Your task to perform on an android device: Open Yahoo.com Image 0: 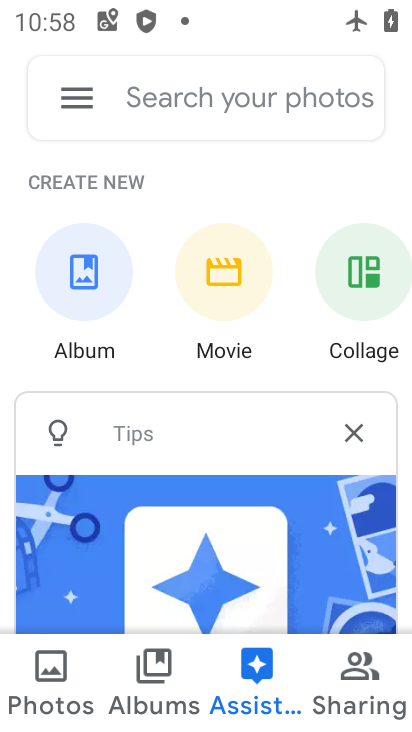
Step 0: press home button
Your task to perform on an android device: Open Yahoo.com Image 1: 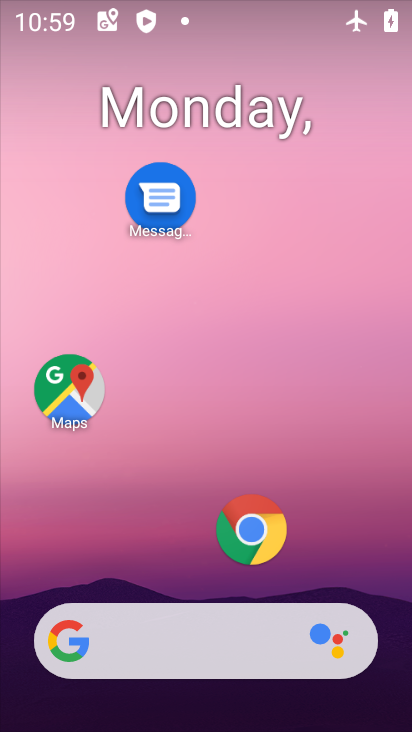
Step 1: drag from (252, 456) to (279, 26)
Your task to perform on an android device: Open Yahoo.com Image 2: 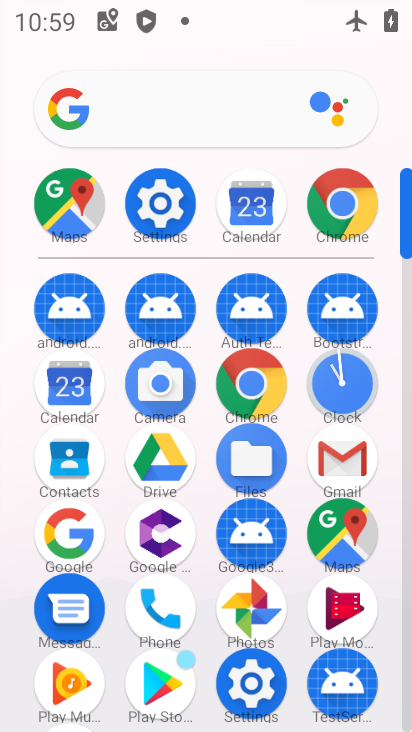
Step 2: click (259, 392)
Your task to perform on an android device: Open Yahoo.com Image 3: 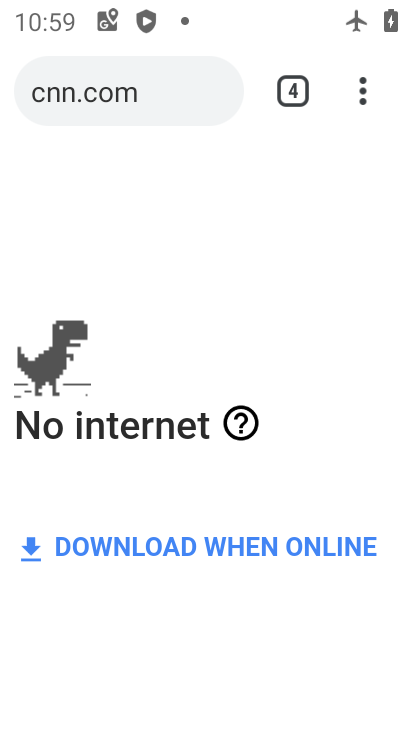
Step 3: click (292, 95)
Your task to perform on an android device: Open Yahoo.com Image 4: 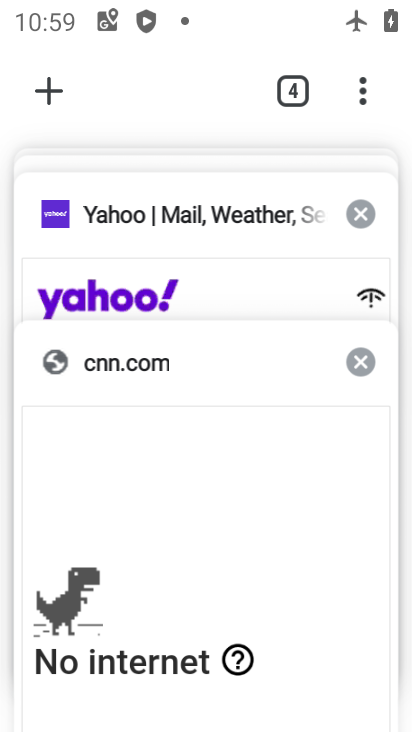
Step 4: click (87, 235)
Your task to perform on an android device: Open Yahoo.com Image 5: 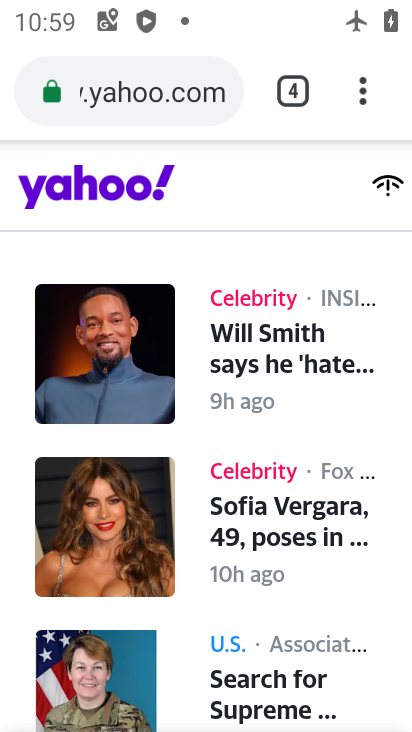
Step 5: drag from (171, 124) to (187, 619)
Your task to perform on an android device: Open Yahoo.com Image 6: 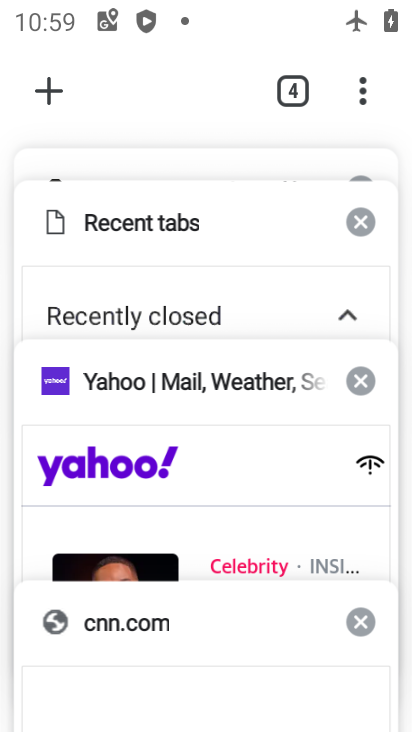
Step 6: click (46, 95)
Your task to perform on an android device: Open Yahoo.com Image 7: 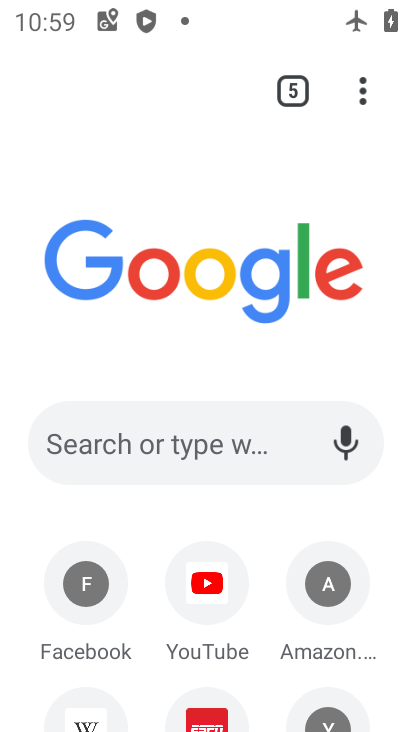
Step 7: drag from (273, 528) to (281, 294)
Your task to perform on an android device: Open Yahoo.com Image 8: 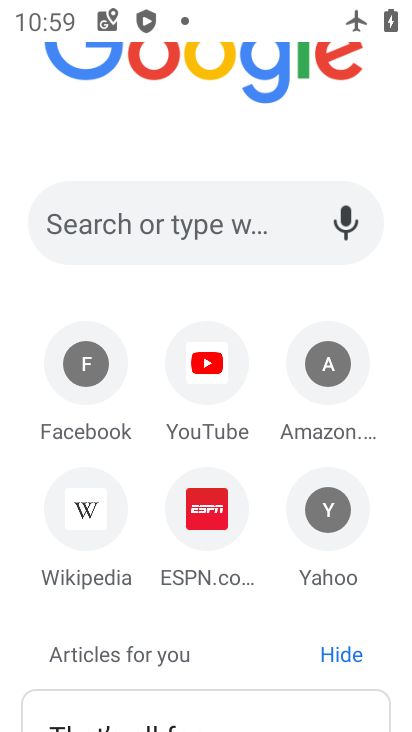
Step 8: click (329, 520)
Your task to perform on an android device: Open Yahoo.com Image 9: 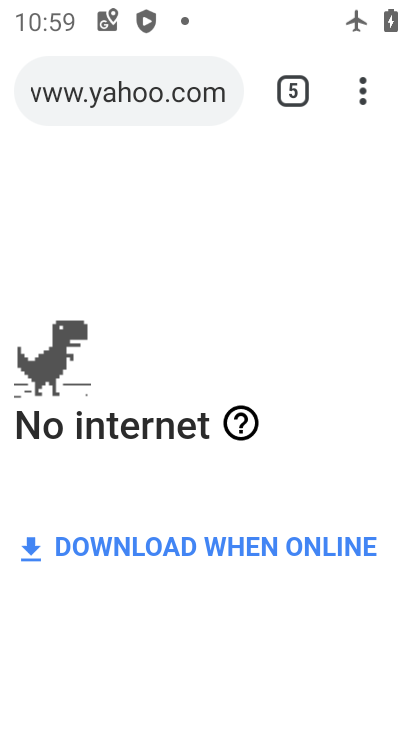
Step 9: task complete